Your task to perform on an android device: turn on bluetooth scan Image 0: 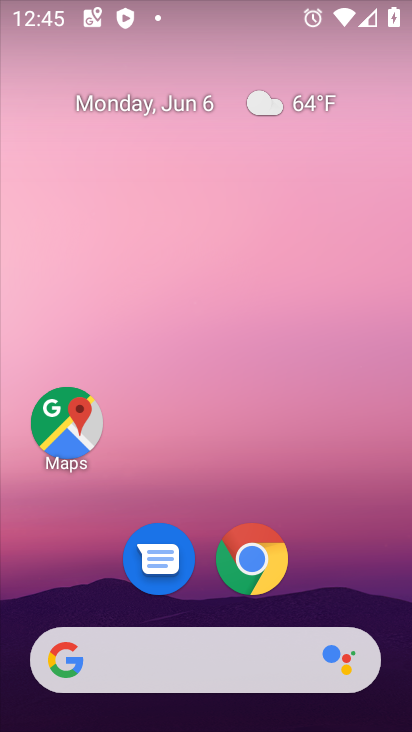
Step 0: drag from (255, 618) to (222, 175)
Your task to perform on an android device: turn on bluetooth scan Image 1: 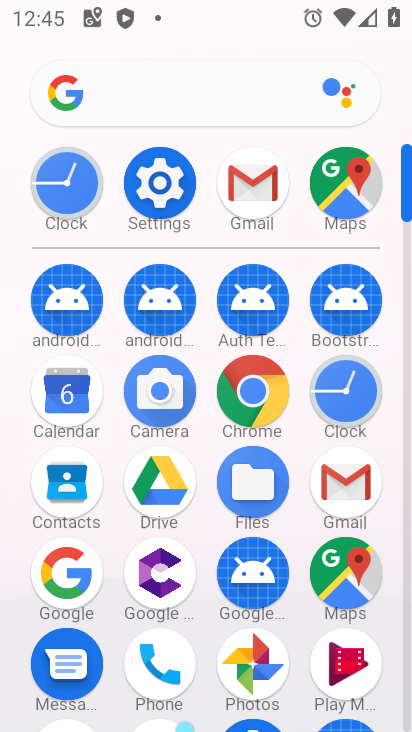
Step 1: click (162, 206)
Your task to perform on an android device: turn on bluetooth scan Image 2: 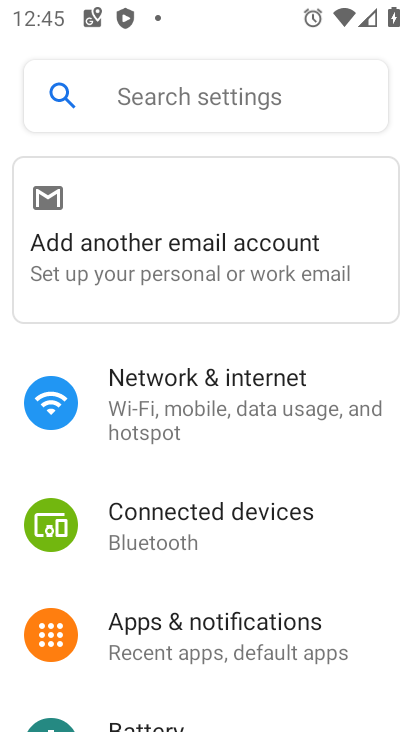
Step 2: click (167, 98)
Your task to perform on an android device: turn on bluetooth scan Image 3: 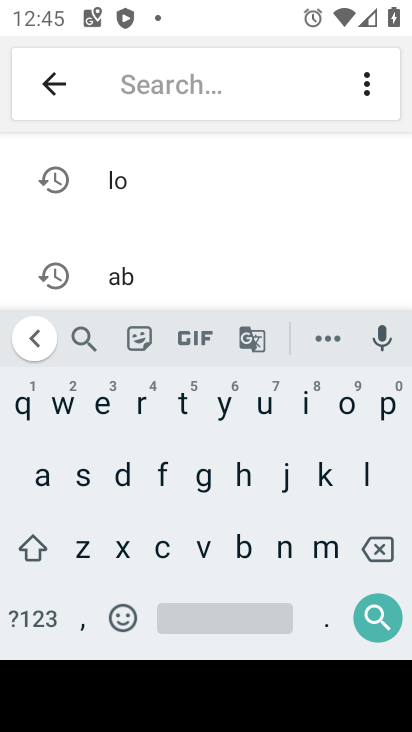
Step 3: click (364, 473)
Your task to perform on an android device: turn on bluetooth scan Image 4: 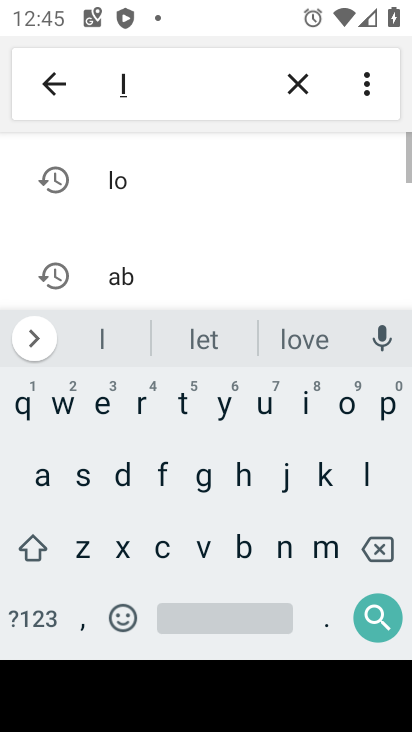
Step 4: click (351, 407)
Your task to perform on an android device: turn on bluetooth scan Image 5: 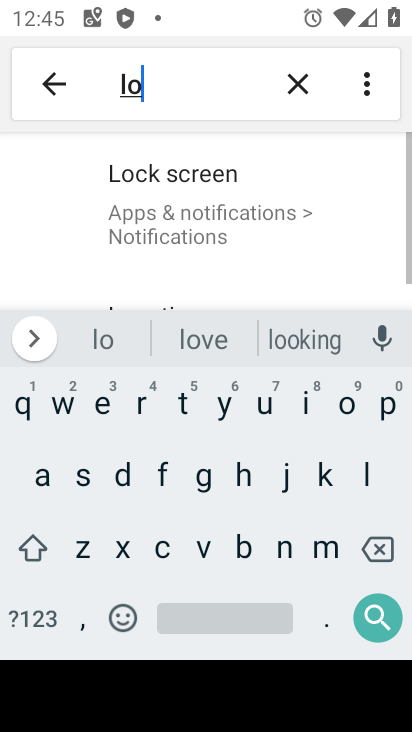
Step 5: click (133, 297)
Your task to perform on an android device: turn on bluetooth scan Image 6: 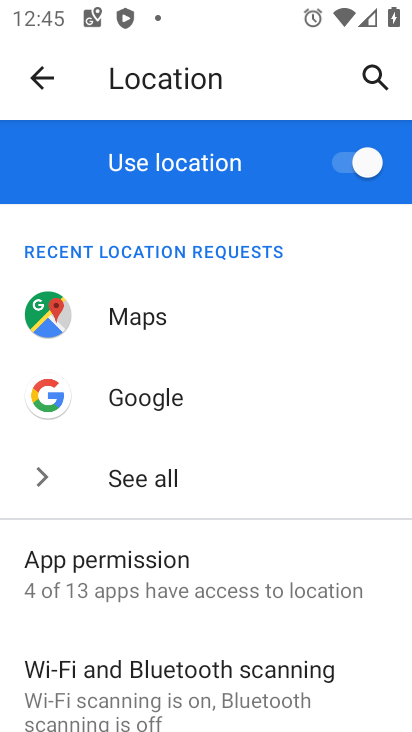
Step 6: drag from (164, 596) to (164, 369)
Your task to perform on an android device: turn on bluetooth scan Image 7: 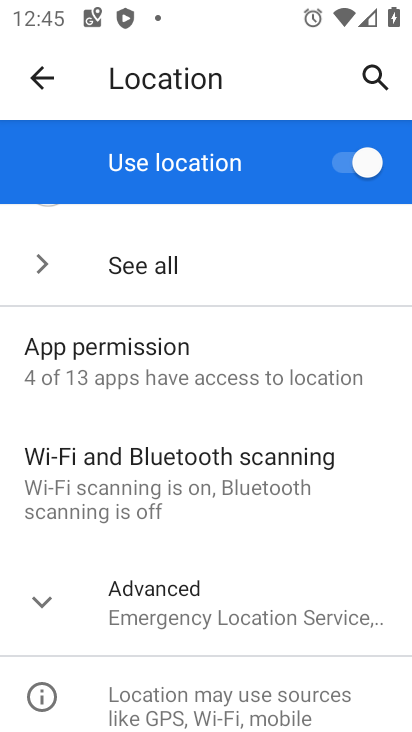
Step 7: click (160, 467)
Your task to perform on an android device: turn on bluetooth scan Image 8: 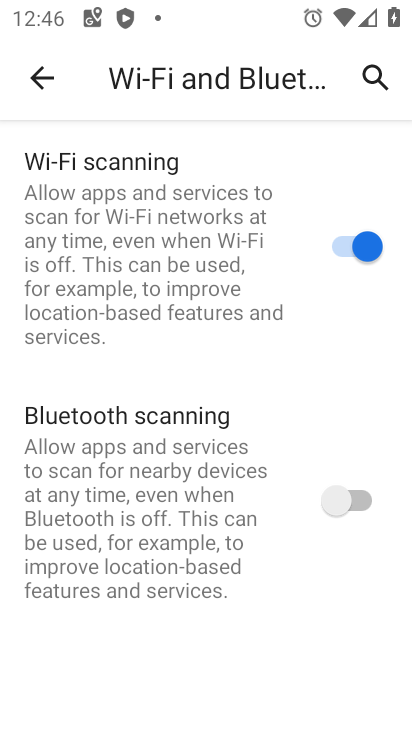
Step 8: click (349, 490)
Your task to perform on an android device: turn on bluetooth scan Image 9: 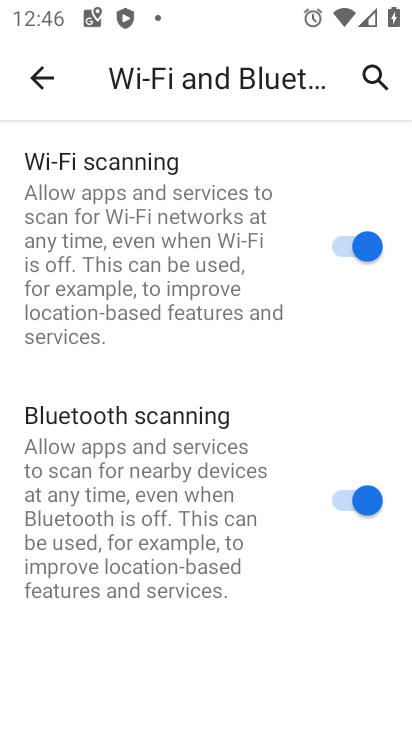
Step 9: task complete